Your task to perform on an android device: toggle pop-ups in chrome Image 0: 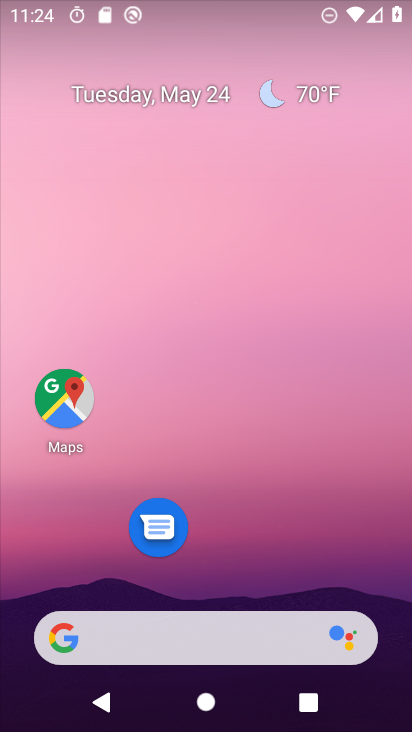
Step 0: drag from (267, 551) to (276, 97)
Your task to perform on an android device: toggle pop-ups in chrome Image 1: 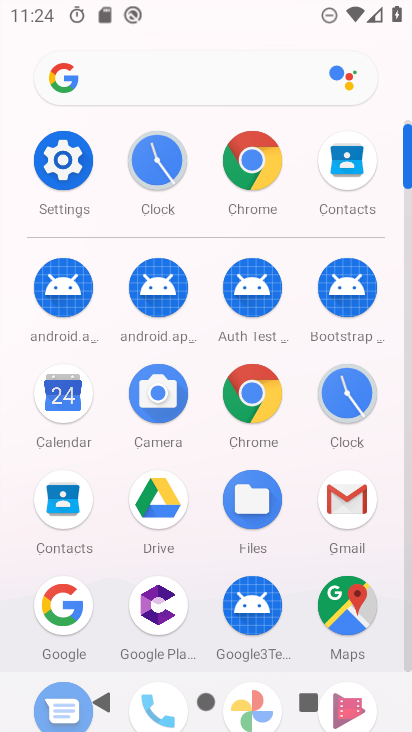
Step 1: click (258, 163)
Your task to perform on an android device: toggle pop-ups in chrome Image 2: 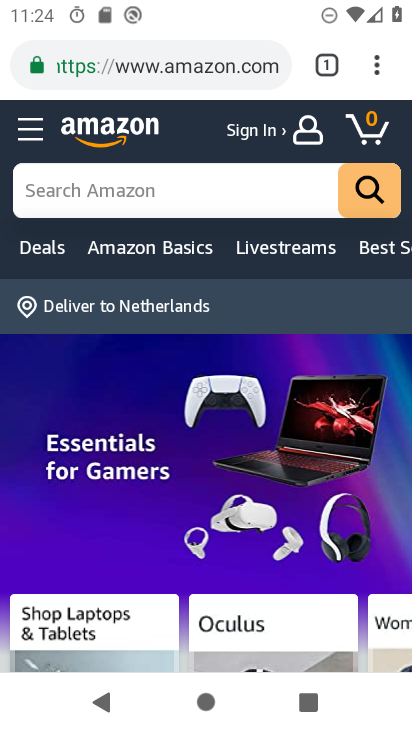
Step 2: click (369, 66)
Your task to perform on an android device: toggle pop-ups in chrome Image 3: 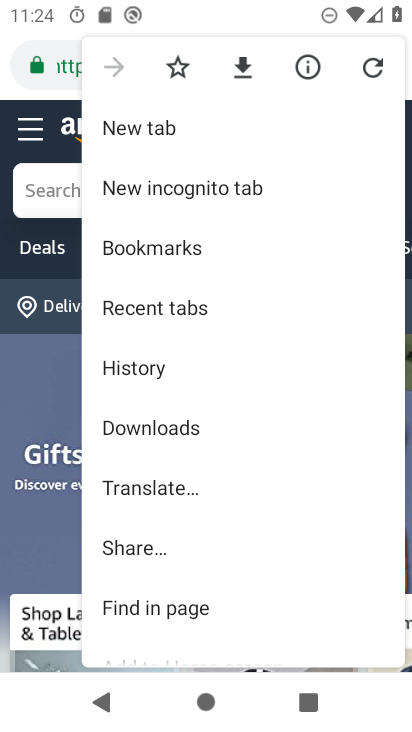
Step 3: drag from (267, 554) to (272, 210)
Your task to perform on an android device: toggle pop-ups in chrome Image 4: 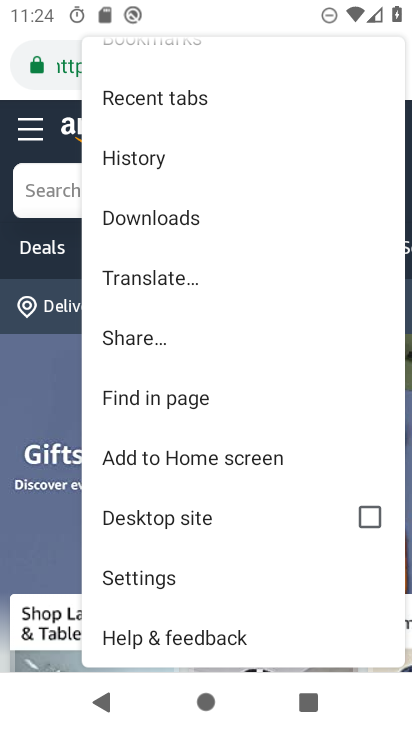
Step 4: click (178, 580)
Your task to perform on an android device: toggle pop-ups in chrome Image 5: 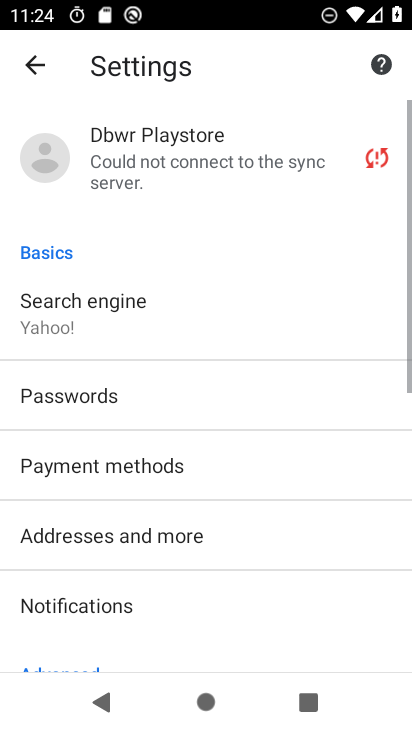
Step 5: drag from (242, 596) to (233, 135)
Your task to perform on an android device: toggle pop-ups in chrome Image 6: 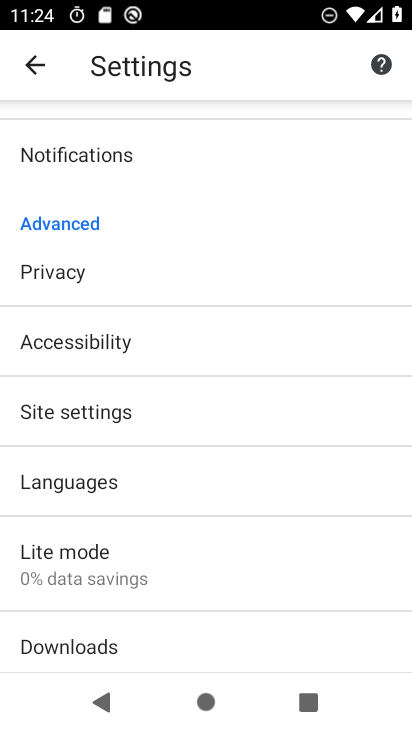
Step 6: click (97, 407)
Your task to perform on an android device: toggle pop-ups in chrome Image 7: 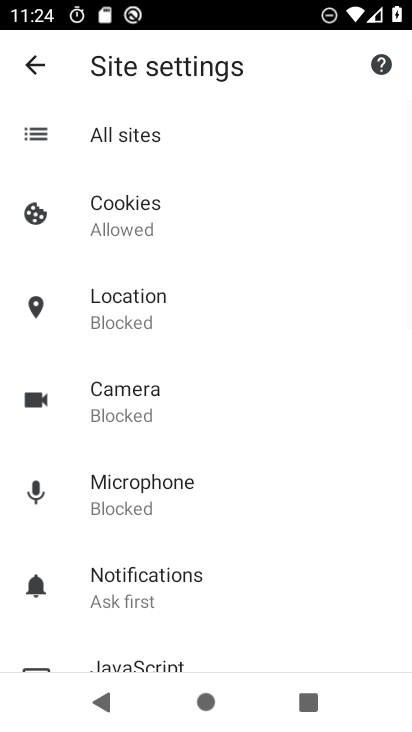
Step 7: drag from (165, 610) to (215, 255)
Your task to perform on an android device: toggle pop-ups in chrome Image 8: 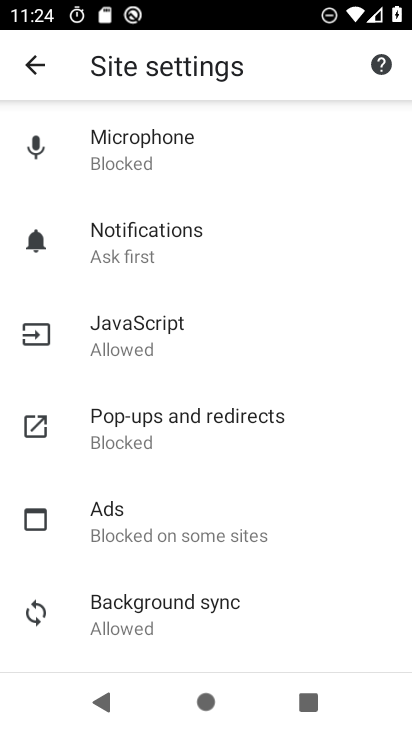
Step 8: click (196, 422)
Your task to perform on an android device: toggle pop-ups in chrome Image 9: 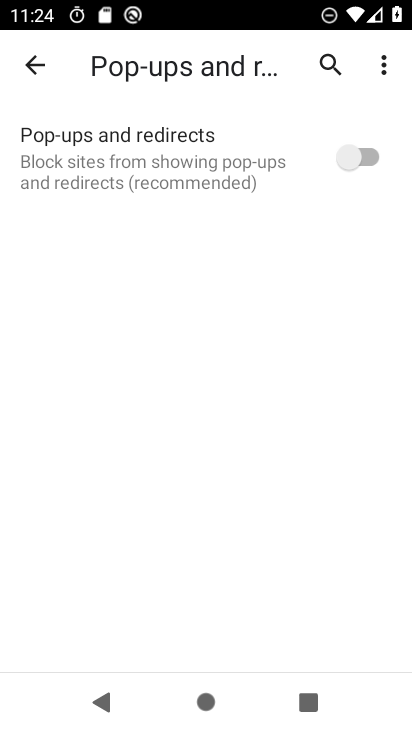
Step 9: click (361, 155)
Your task to perform on an android device: toggle pop-ups in chrome Image 10: 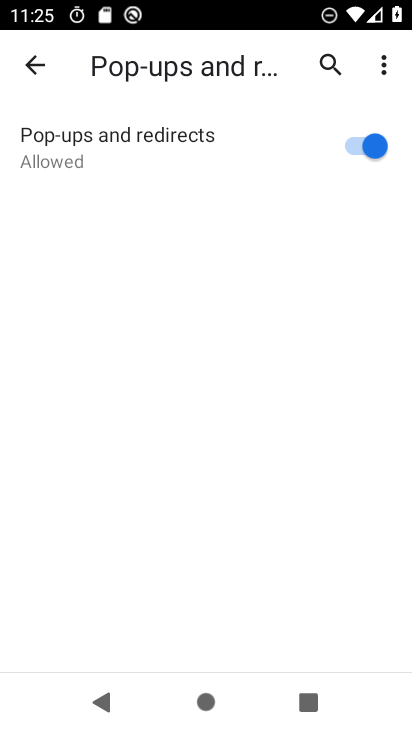
Step 10: task complete